Your task to perform on an android device: set default search engine in the chrome app Image 0: 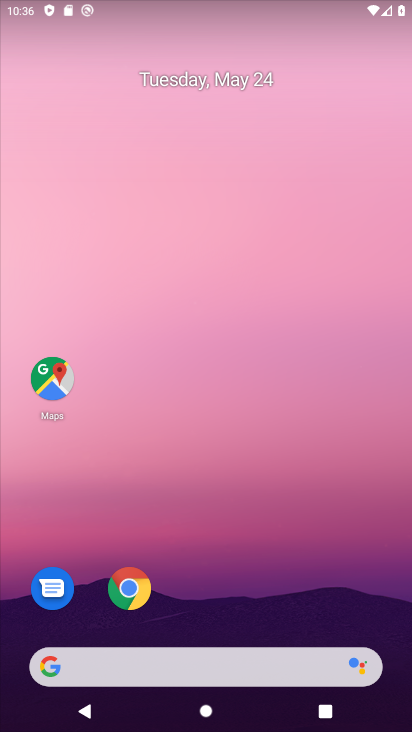
Step 0: drag from (259, 608) to (234, 161)
Your task to perform on an android device: set default search engine in the chrome app Image 1: 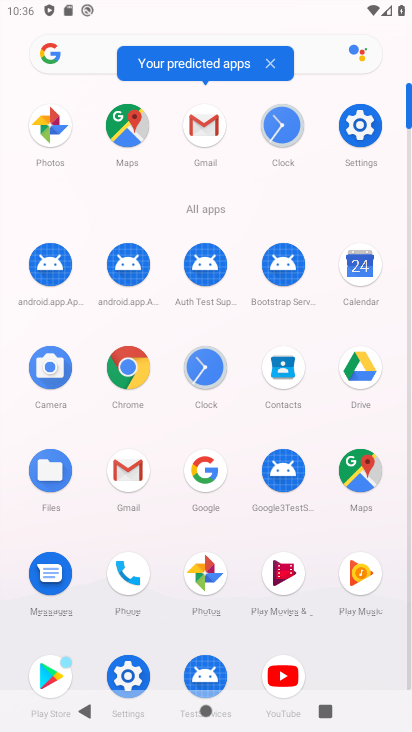
Step 1: click (139, 361)
Your task to perform on an android device: set default search engine in the chrome app Image 2: 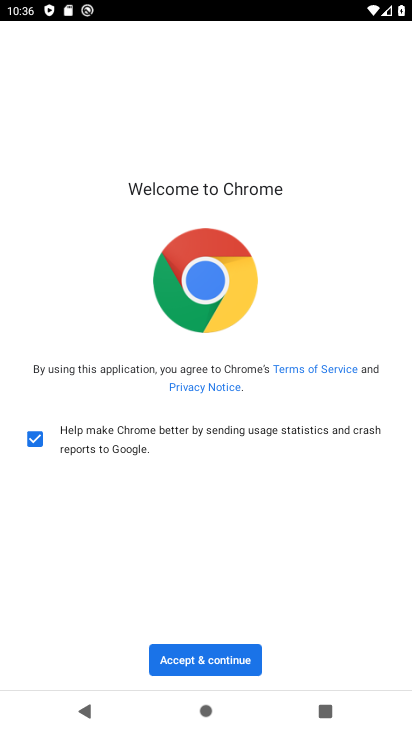
Step 2: click (172, 657)
Your task to perform on an android device: set default search engine in the chrome app Image 3: 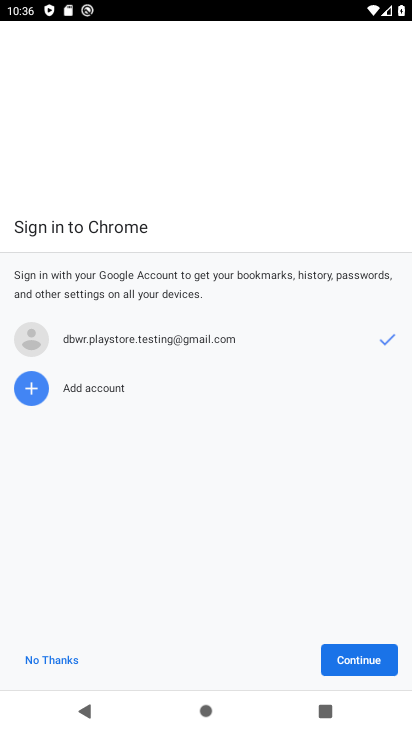
Step 3: click (350, 657)
Your task to perform on an android device: set default search engine in the chrome app Image 4: 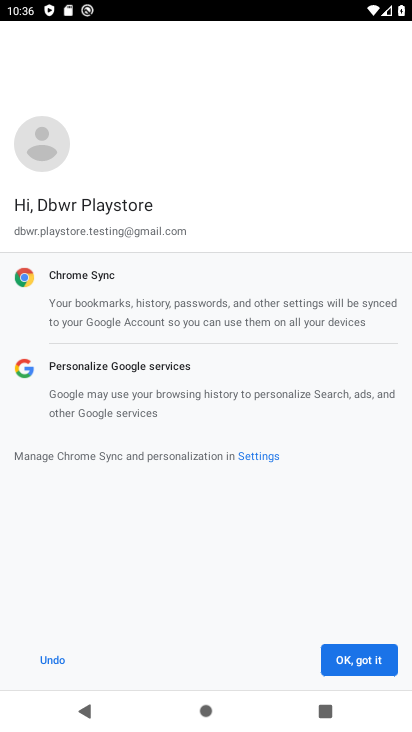
Step 4: click (350, 657)
Your task to perform on an android device: set default search engine in the chrome app Image 5: 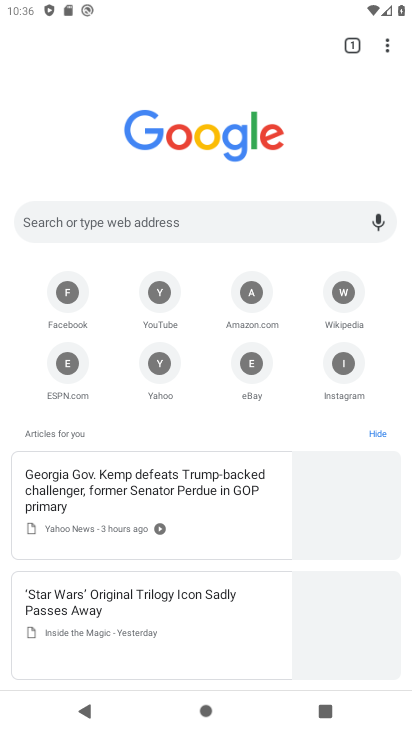
Step 5: click (389, 51)
Your task to perform on an android device: set default search engine in the chrome app Image 6: 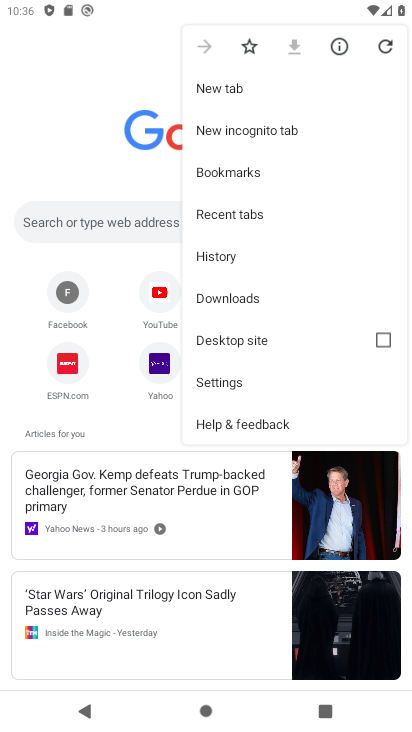
Step 6: click (265, 380)
Your task to perform on an android device: set default search engine in the chrome app Image 7: 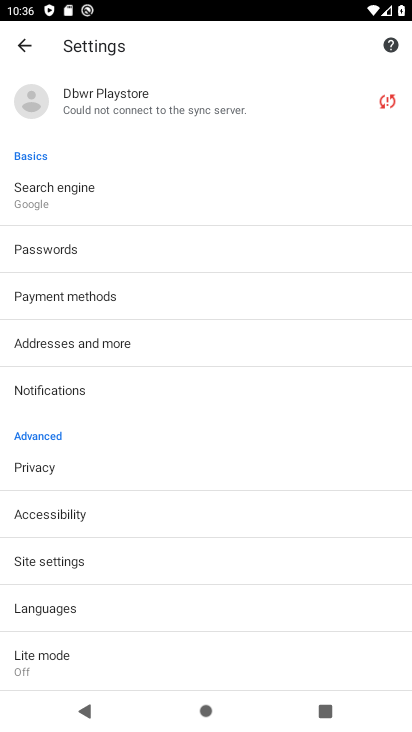
Step 7: click (171, 196)
Your task to perform on an android device: set default search engine in the chrome app Image 8: 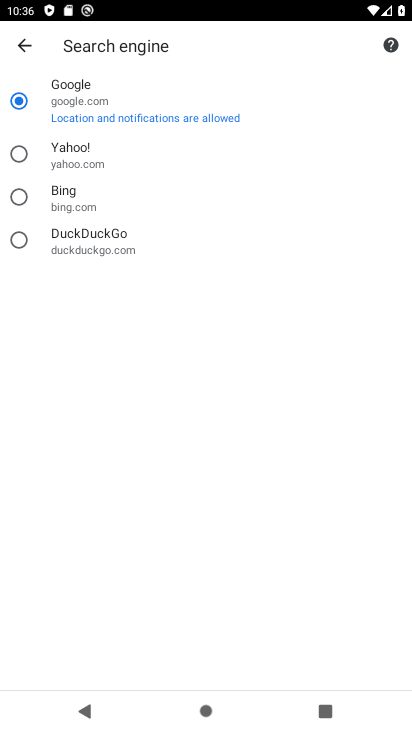
Step 8: click (147, 165)
Your task to perform on an android device: set default search engine in the chrome app Image 9: 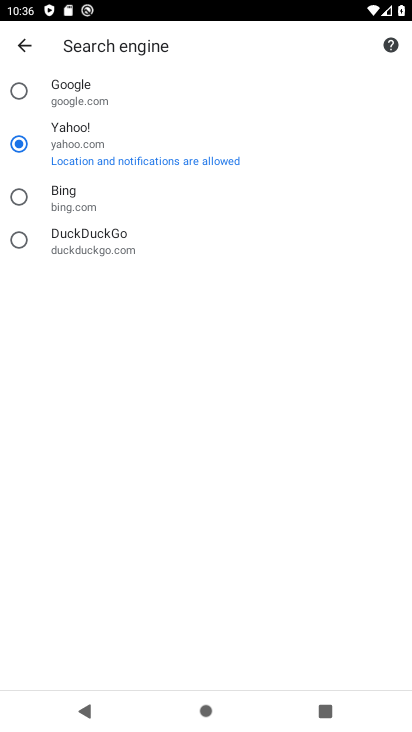
Step 9: task complete